Your task to perform on an android device: turn off translation in the chrome app Image 0: 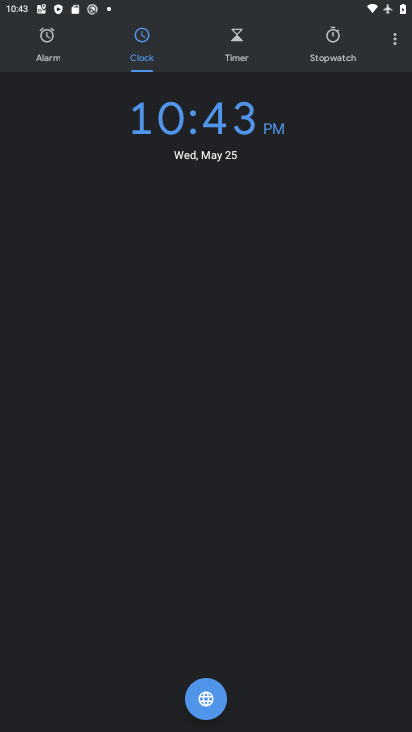
Step 0: press home button
Your task to perform on an android device: turn off translation in the chrome app Image 1: 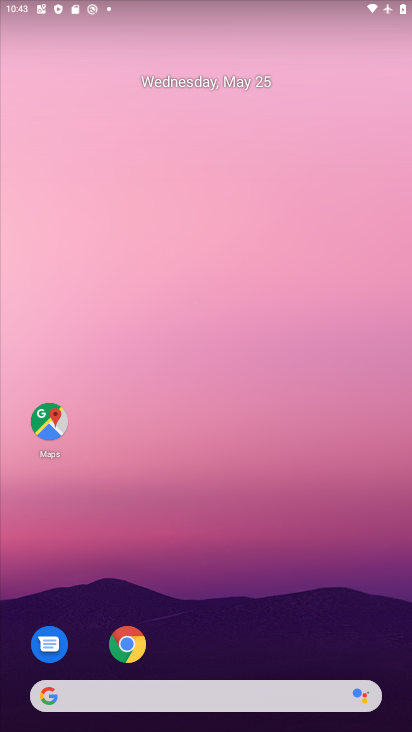
Step 1: click (135, 641)
Your task to perform on an android device: turn off translation in the chrome app Image 2: 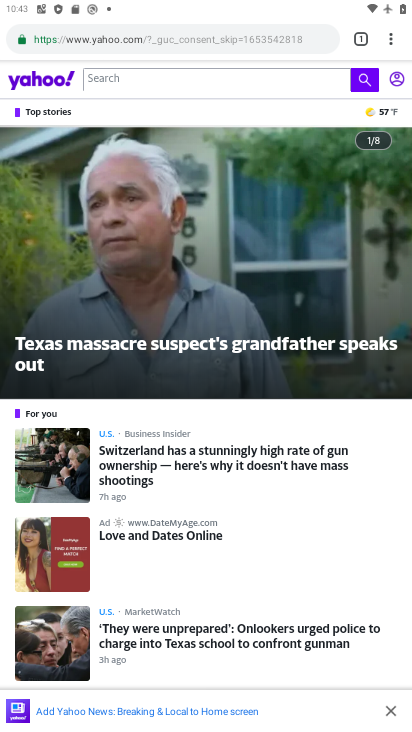
Step 2: click (386, 36)
Your task to perform on an android device: turn off translation in the chrome app Image 3: 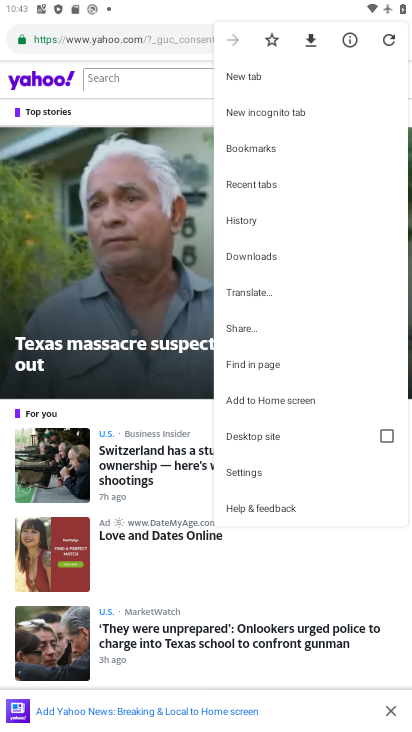
Step 3: click (273, 476)
Your task to perform on an android device: turn off translation in the chrome app Image 4: 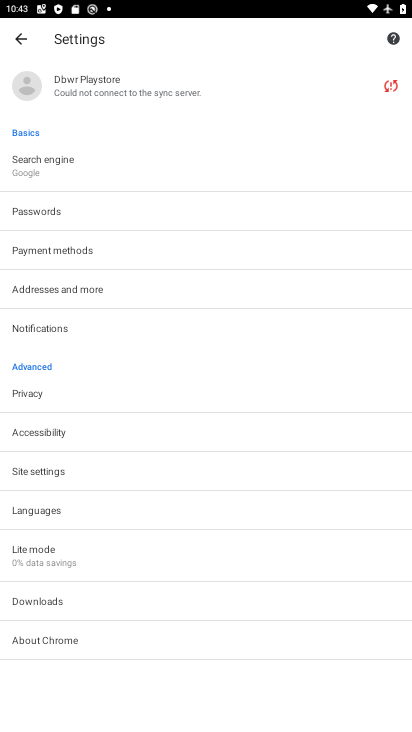
Step 4: click (50, 511)
Your task to perform on an android device: turn off translation in the chrome app Image 5: 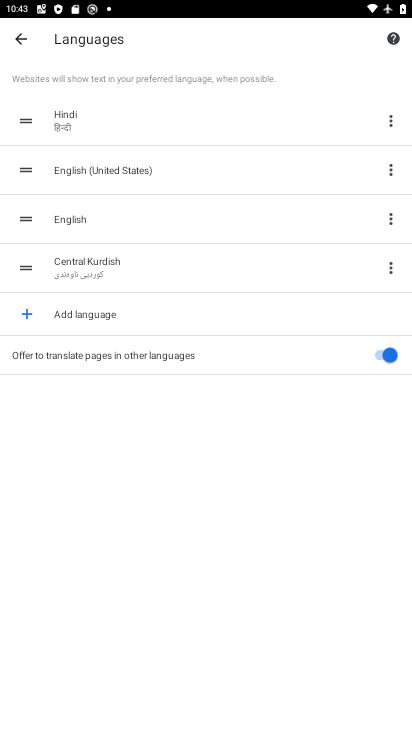
Step 5: click (382, 348)
Your task to perform on an android device: turn off translation in the chrome app Image 6: 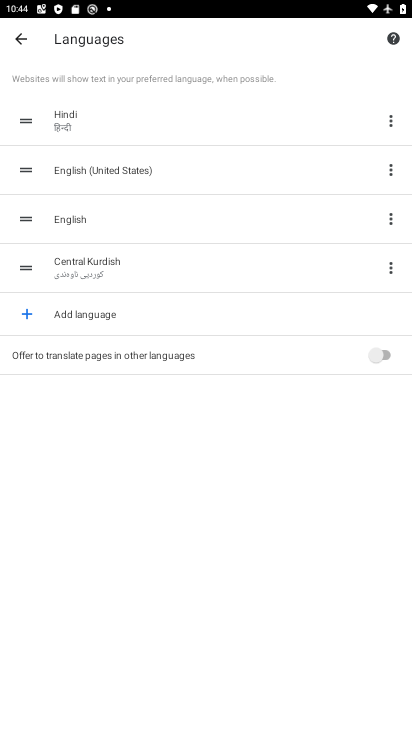
Step 6: task complete